Your task to perform on an android device: add a contact Image 0: 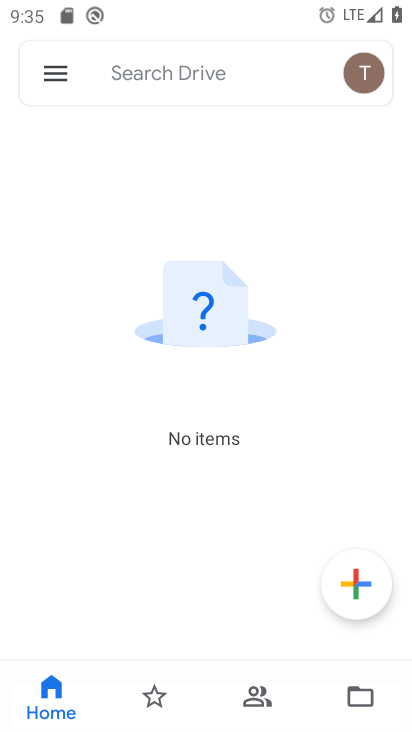
Step 0: press home button
Your task to perform on an android device: add a contact Image 1: 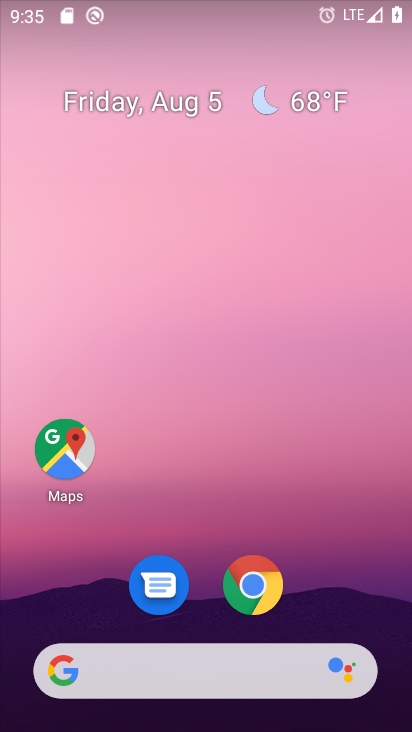
Step 1: drag from (221, 520) to (250, 47)
Your task to perform on an android device: add a contact Image 2: 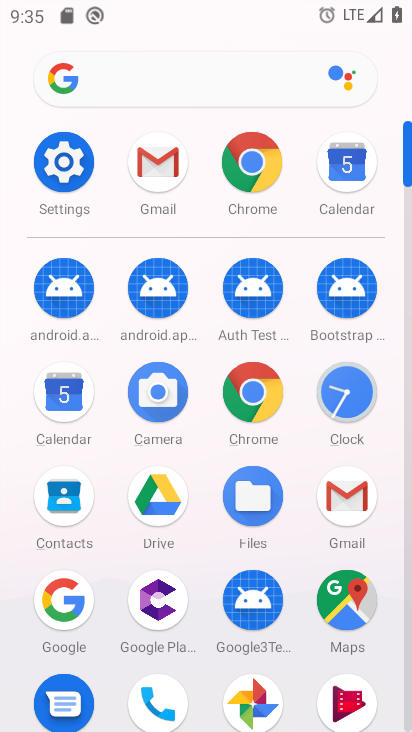
Step 2: click (74, 158)
Your task to perform on an android device: add a contact Image 3: 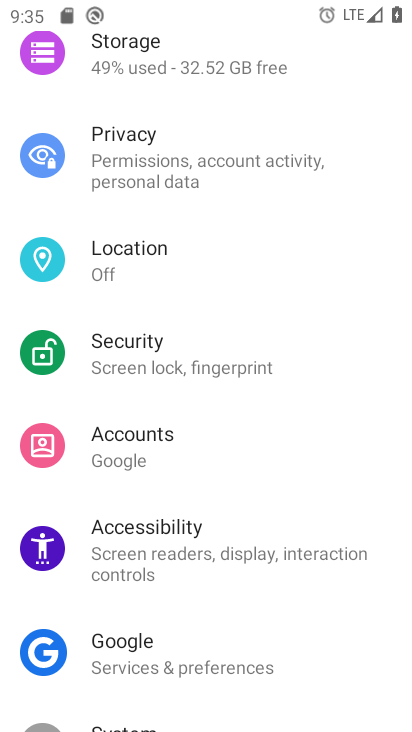
Step 3: press home button
Your task to perform on an android device: add a contact Image 4: 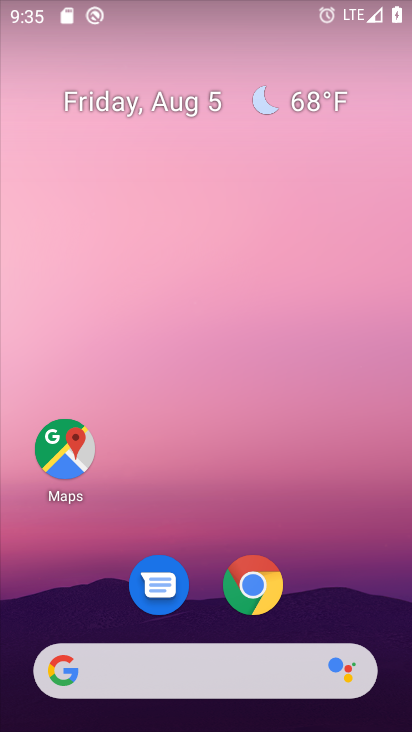
Step 4: drag from (213, 515) to (278, 0)
Your task to perform on an android device: add a contact Image 5: 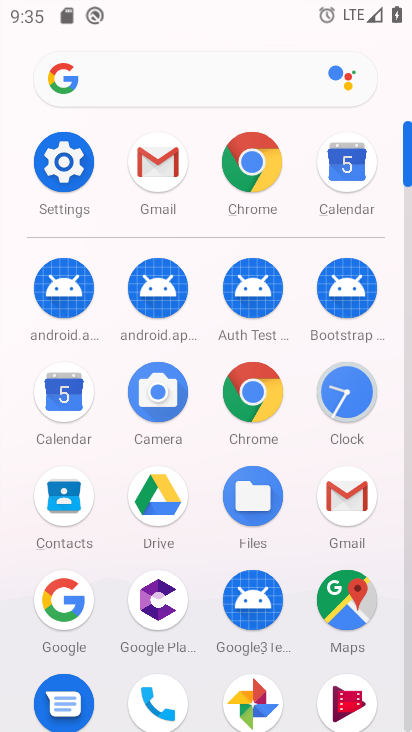
Step 5: click (65, 485)
Your task to perform on an android device: add a contact Image 6: 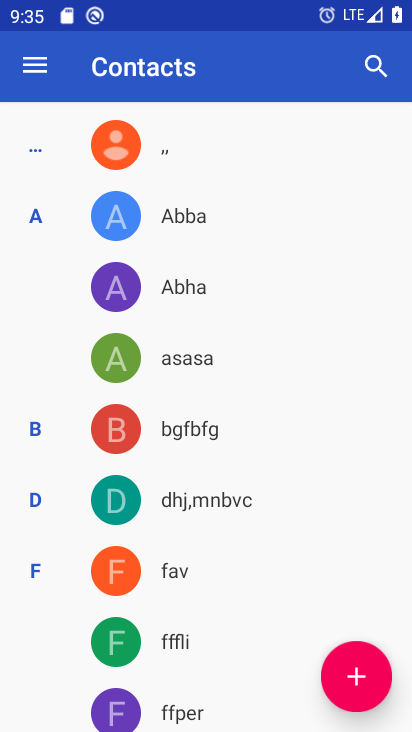
Step 6: click (356, 672)
Your task to perform on an android device: add a contact Image 7: 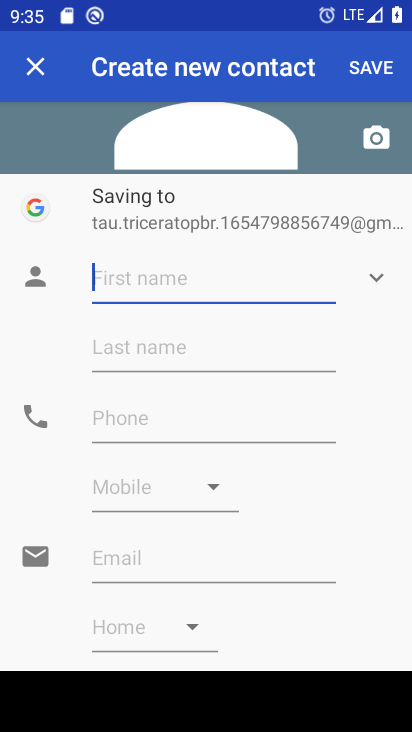
Step 7: type "Adya"
Your task to perform on an android device: add a contact Image 8: 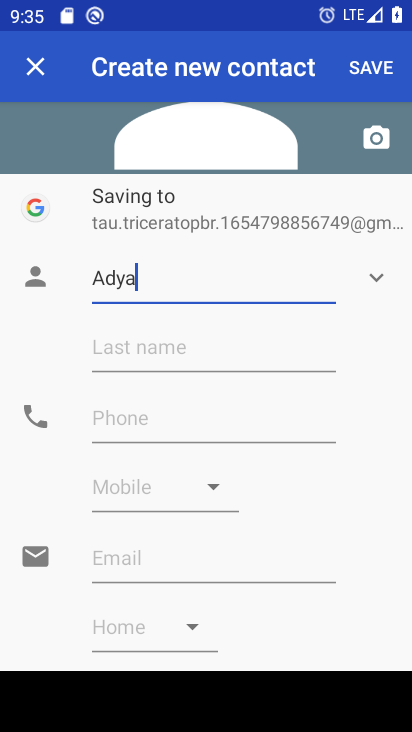
Step 8: click (219, 430)
Your task to perform on an android device: add a contact Image 9: 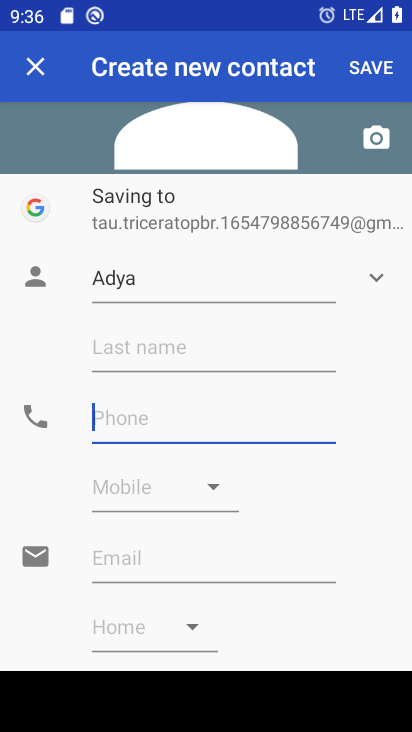
Step 9: type "+1234567890"
Your task to perform on an android device: add a contact Image 10: 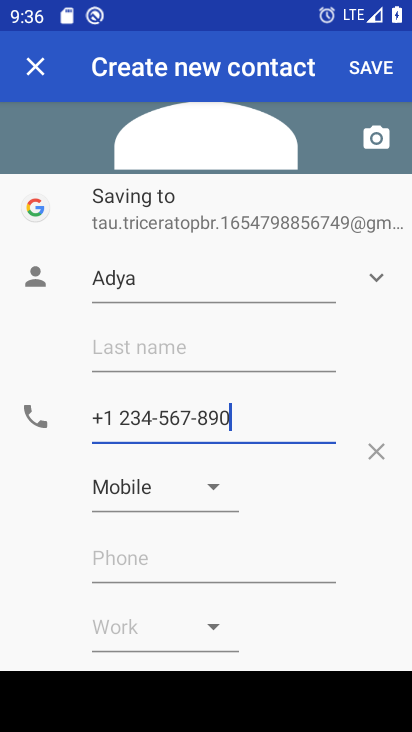
Step 10: click (384, 74)
Your task to perform on an android device: add a contact Image 11: 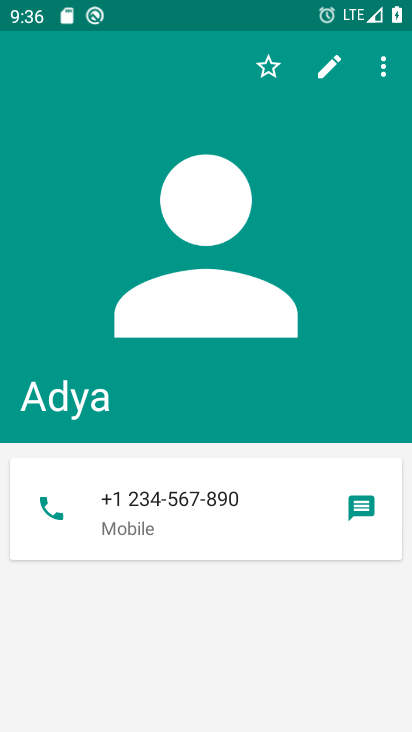
Step 11: task complete